Your task to perform on an android device: Open calendar and show me the fourth week of next month Image 0: 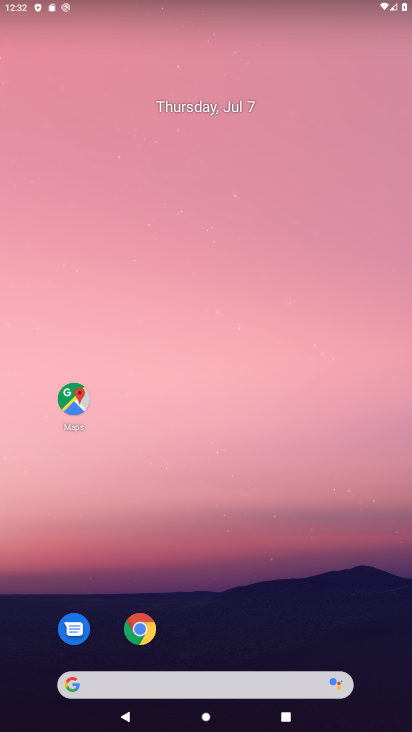
Step 0: drag from (240, 617) to (237, 98)
Your task to perform on an android device: Open calendar and show me the fourth week of next month Image 1: 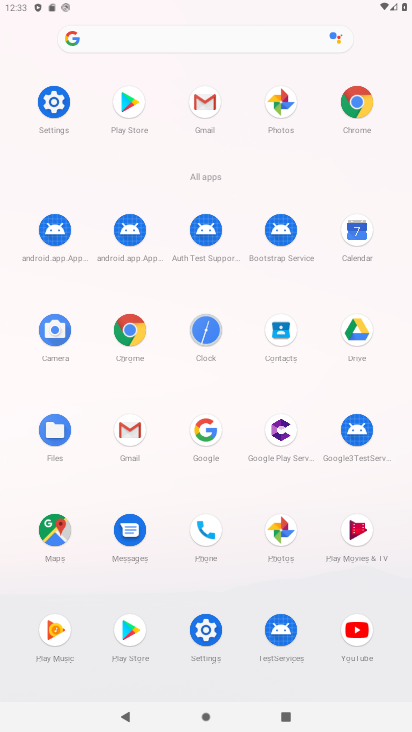
Step 1: click (361, 233)
Your task to perform on an android device: Open calendar and show me the fourth week of next month Image 2: 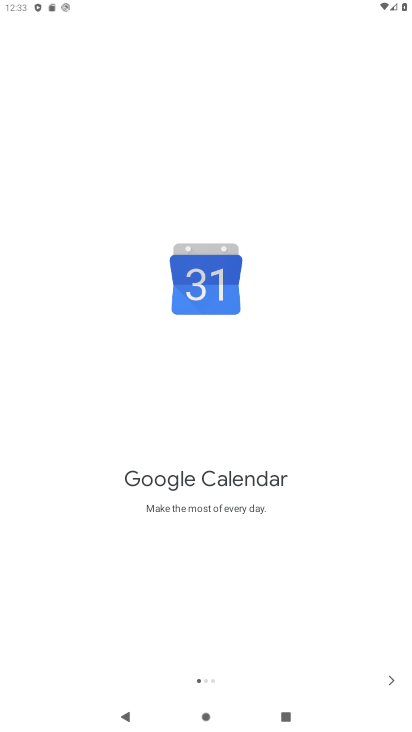
Step 2: click (391, 679)
Your task to perform on an android device: Open calendar and show me the fourth week of next month Image 3: 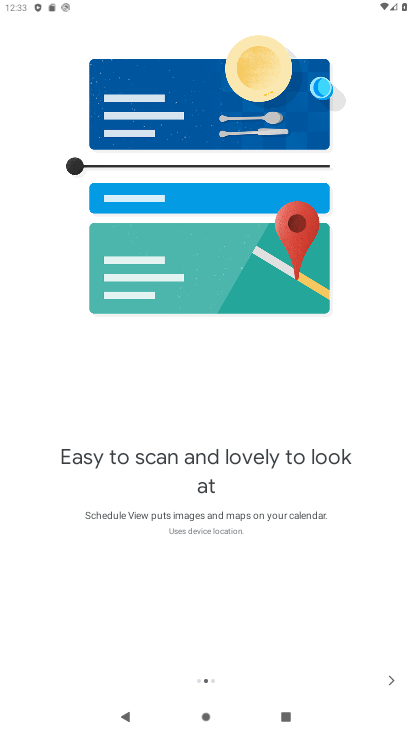
Step 3: click (391, 679)
Your task to perform on an android device: Open calendar and show me the fourth week of next month Image 4: 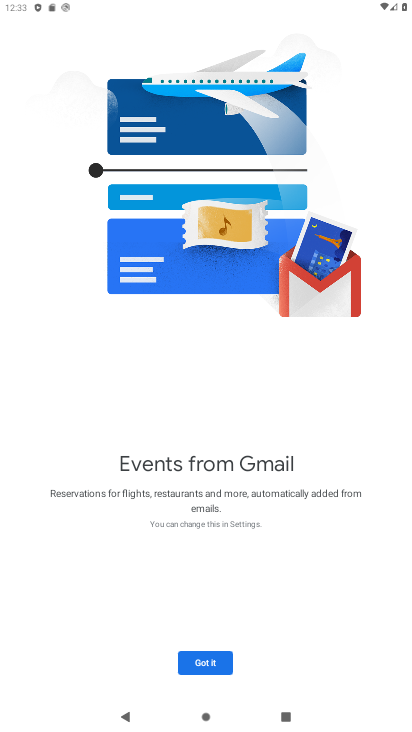
Step 4: click (211, 662)
Your task to perform on an android device: Open calendar and show me the fourth week of next month Image 5: 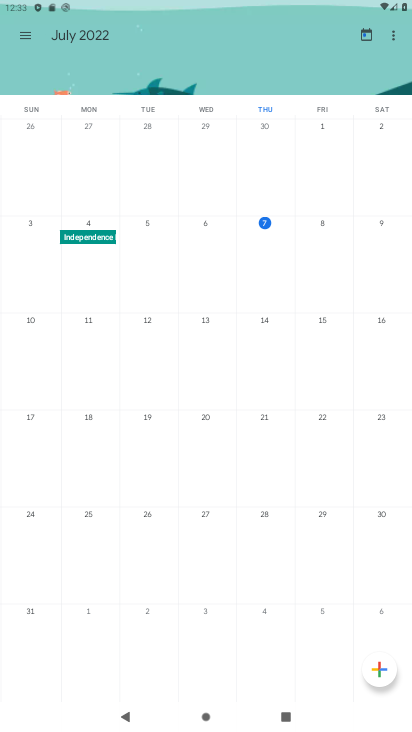
Step 5: drag from (383, 478) to (15, 490)
Your task to perform on an android device: Open calendar and show me the fourth week of next month Image 6: 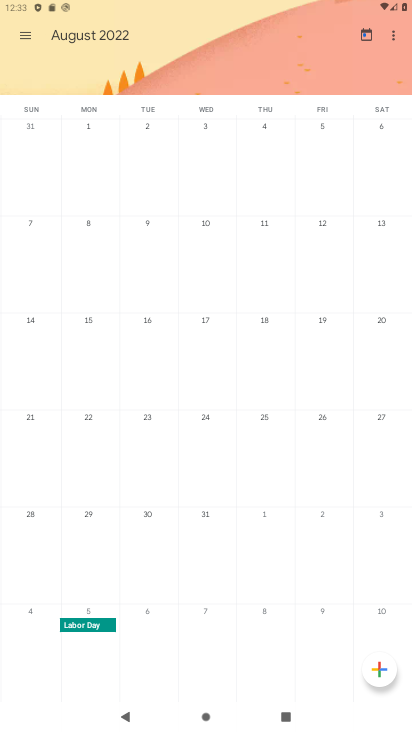
Step 6: click (85, 421)
Your task to perform on an android device: Open calendar and show me the fourth week of next month Image 7: 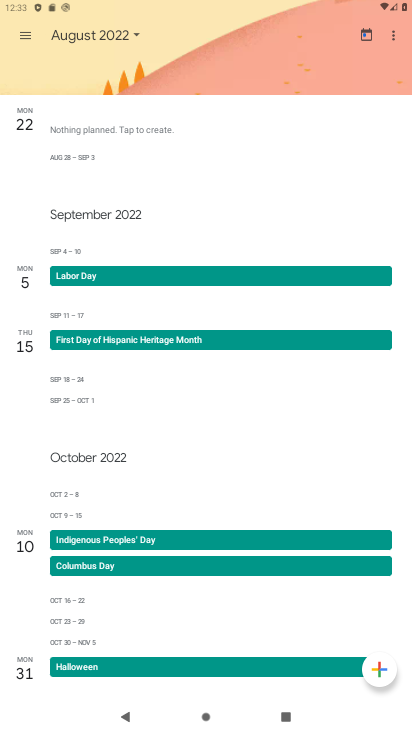
Step 7: click (26, 34)
Your task to perform on an android device: Open calendar and show me the fourth week of next month Image 8: 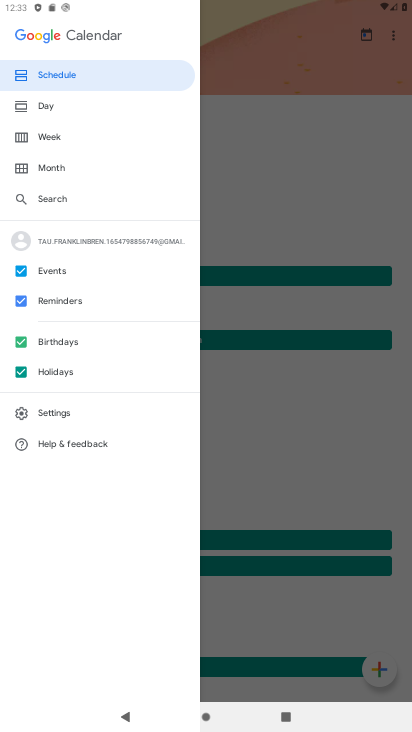
Step 8: click (59, 132)
Your task to perform on an android device: Open calendar and show me the fourth week of next month Image 9: 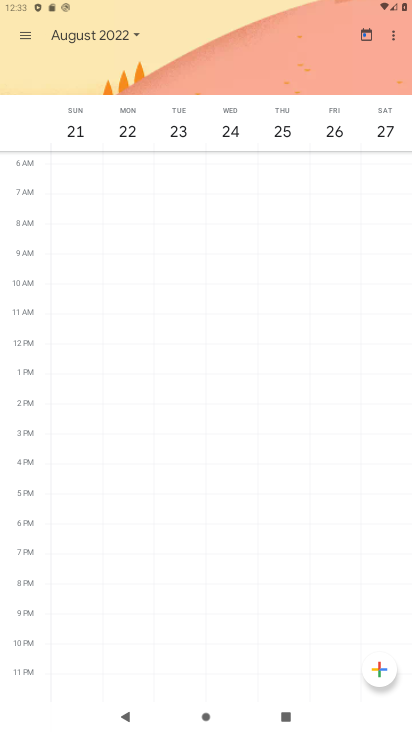
Step 9: task complete